Your task to perform on an android device: change the clock display to analog Image 0: 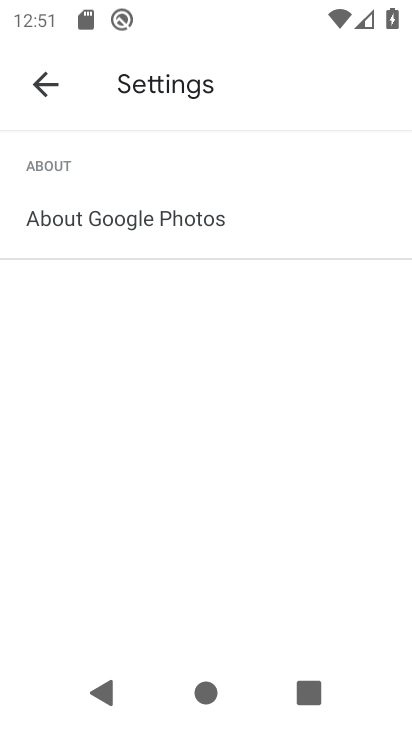
Step 0: press home button
Your task to perform on an android device: change the clock display to analog Image 1: 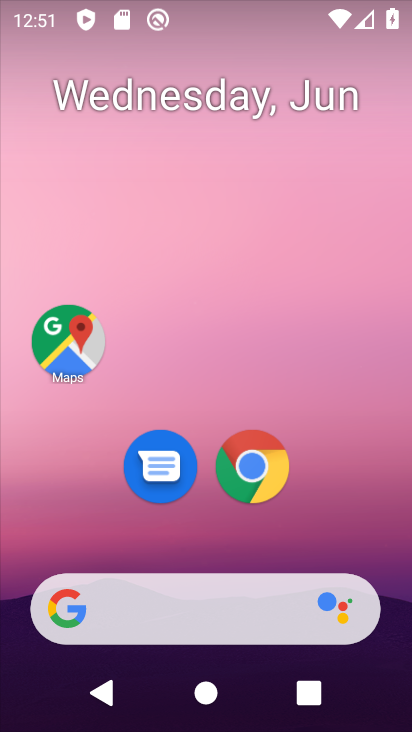
Step 1: drag from (112, 552) to (209, 72)
Your task to perform on an android device: change the clock display to analog Image 2: 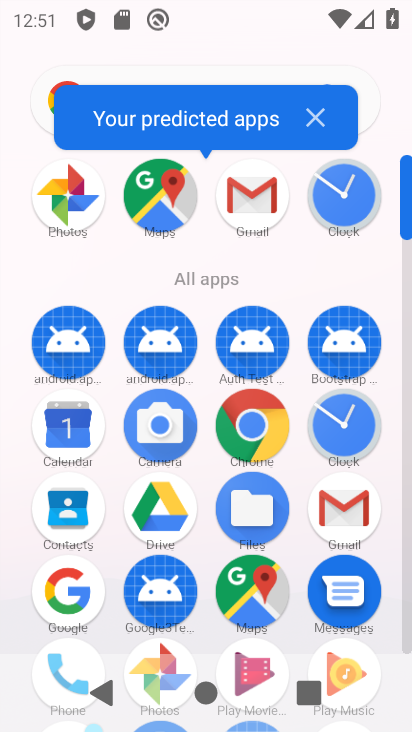
Step 2: click (329, 418)
Your task to perform on an android device: change the clock display to analog Image 3: 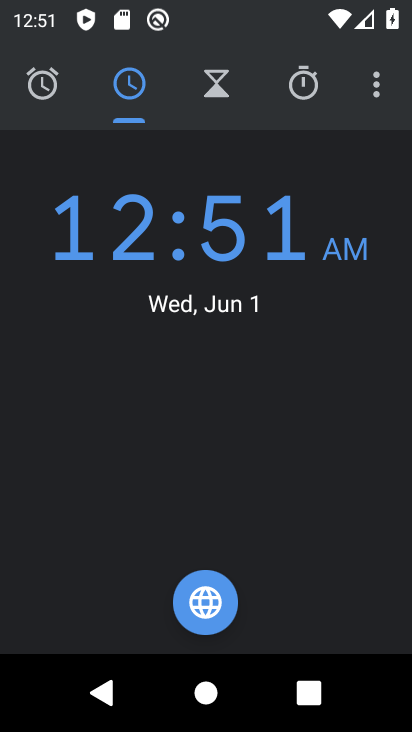
Step 3: click (367, 86)
Your task to perform on an android device: change the clock display to analog Image 4: 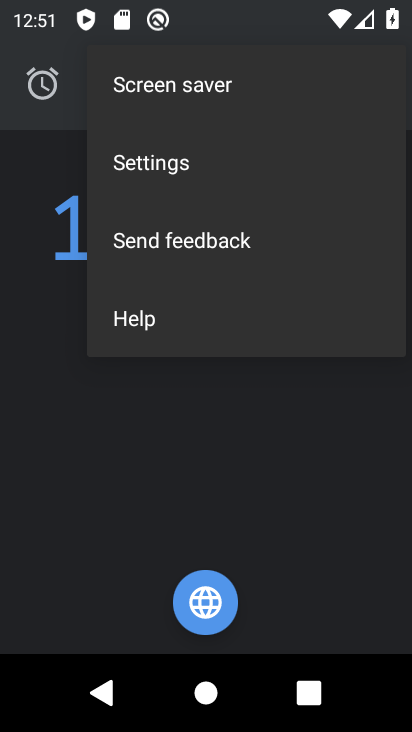
Step 4: click (341, 146)
Your task to perform on an android device: change the clock display to analog Image 5: 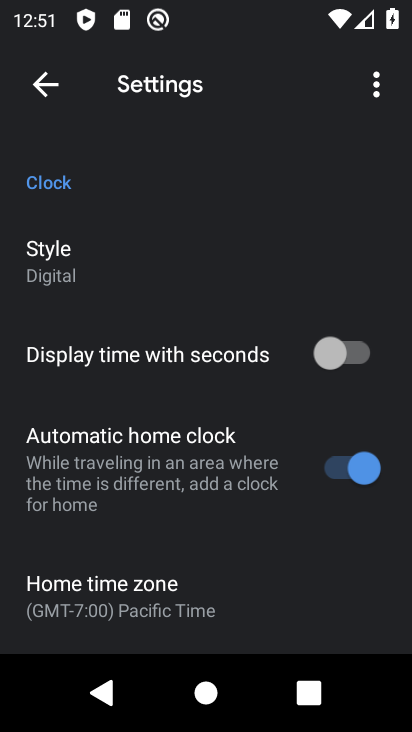
Step 5: click (162, 249)
Your task to perform on an android device: change the clock display to analog Image 6: 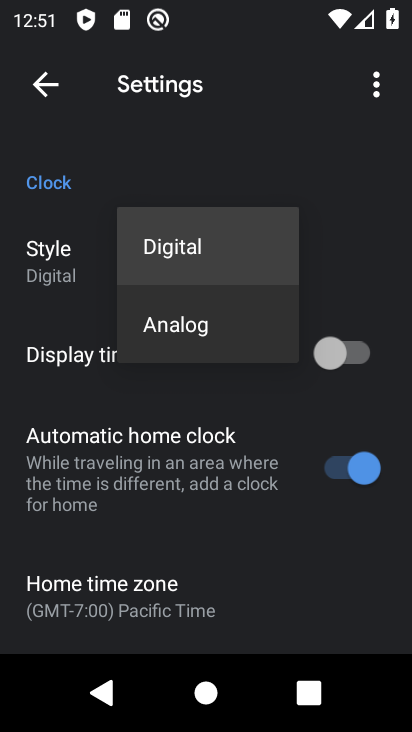
Step 6: click (170, 330)
Your task to perform on an android device: change the clock display to analog Image 7: 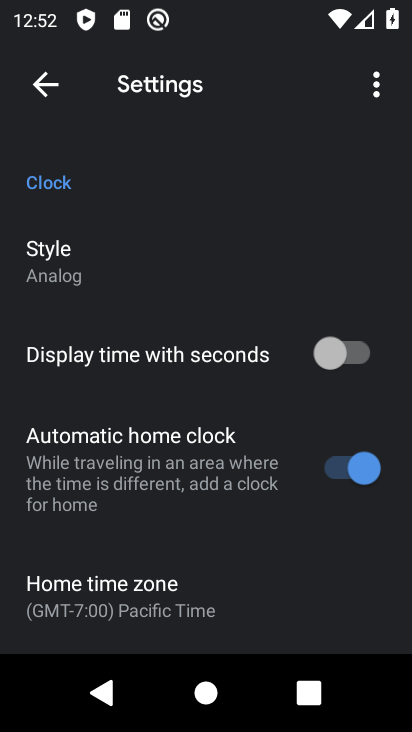
Step 7: task complete